Your task to perform on an android device: Open Chrome and go to settings Image 0: 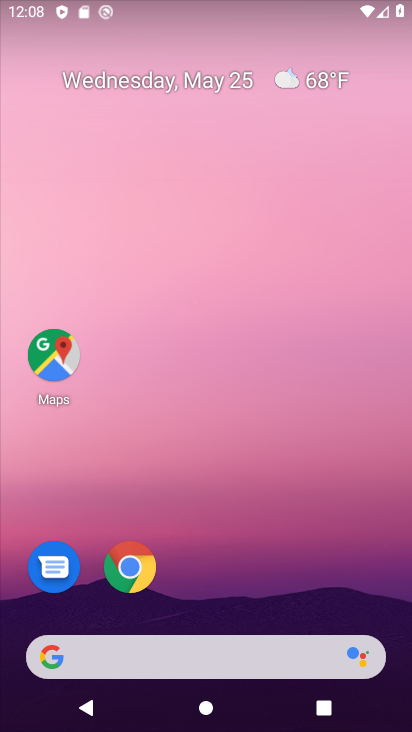
Step 0: click (126, 573)
Your task to perform on an android device: Open Chrome and go to settings Image 1: 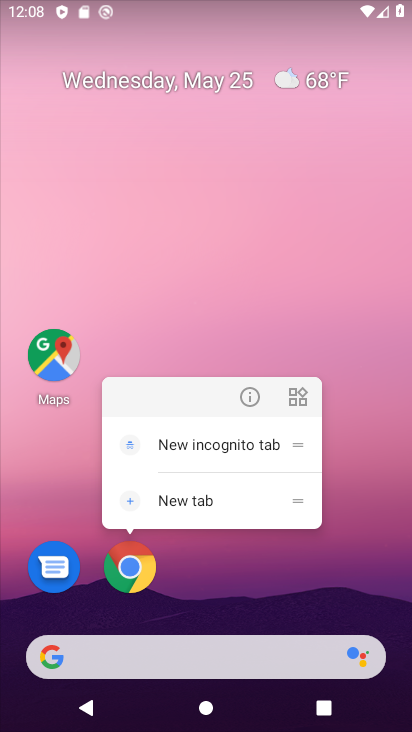
Step 1: click (126, 573)
Your task to perform on an android device: Open Chrome and go to settings Image 2: 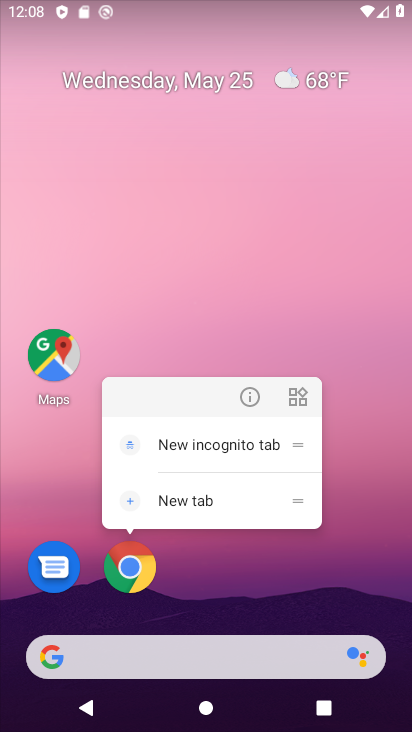
Step 2: click (129, 564)
Your task to perform on an android device: Open Chrome and go to settings Image 3: 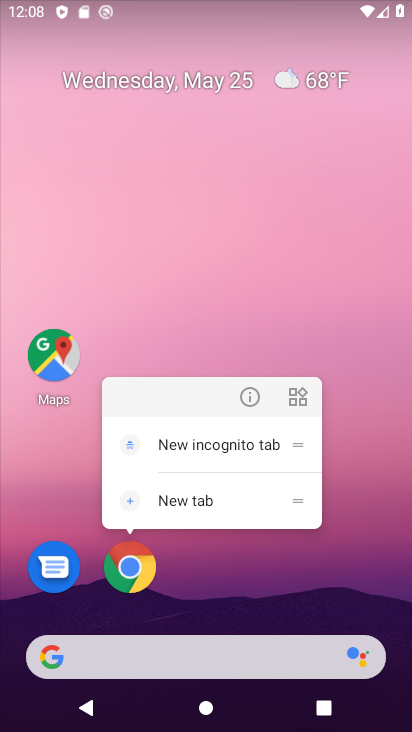
Step 3: click (129, 564)
Your task to perform on an android device: Open Chrome and go to settings Image 4: 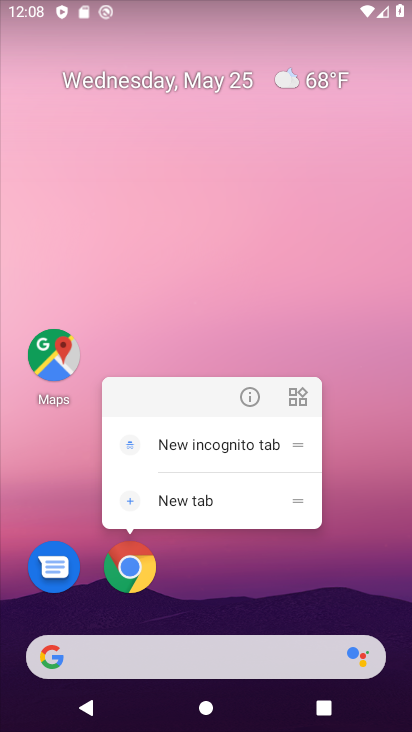
Step 4: click (146, 578)
Your task to perform on an android device: Open Chrome and go to settings Image 5: 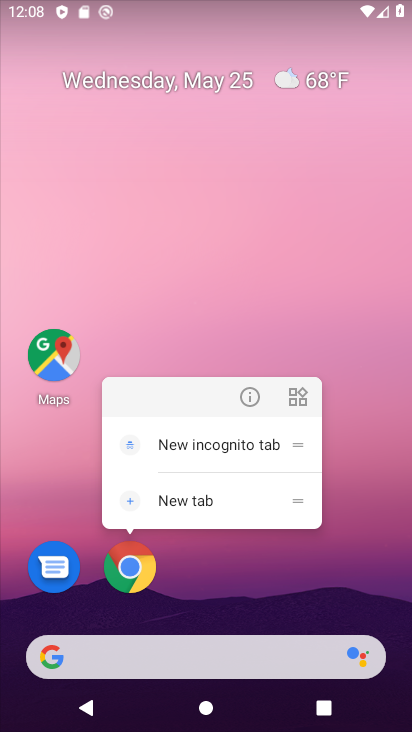
Step 5: click (146, 578)
Your task to perform on an android device: Open Chrome and go to settings Image 6: 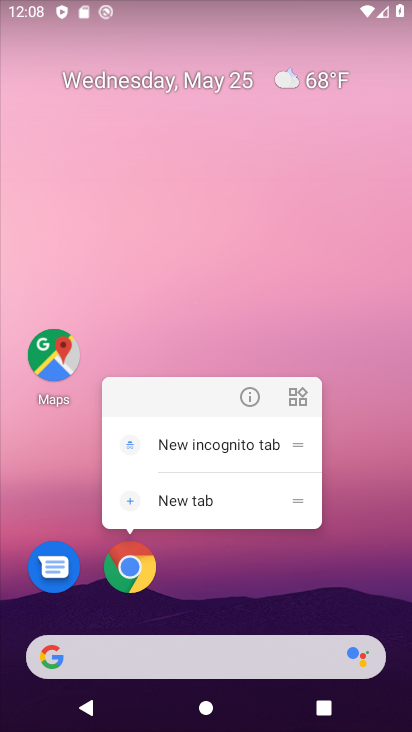
Step 6: click (141, 556)
Your task to perform on an android device: Open Chrome and go to settings Image 7: 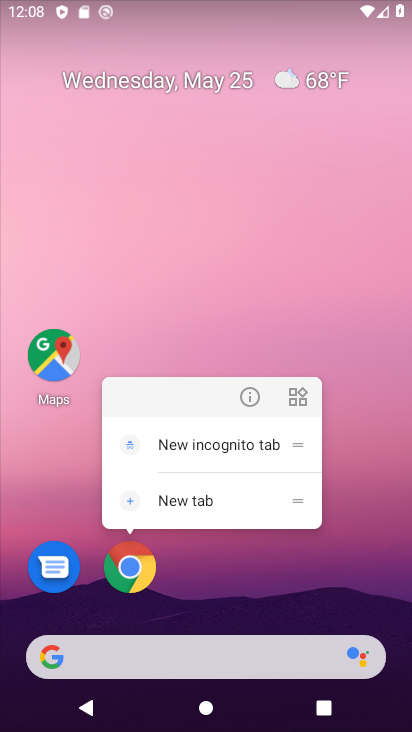
Step 7: click (138, 574)
Your task to perform on an android device: Open Chrome and go to settings Image 8: 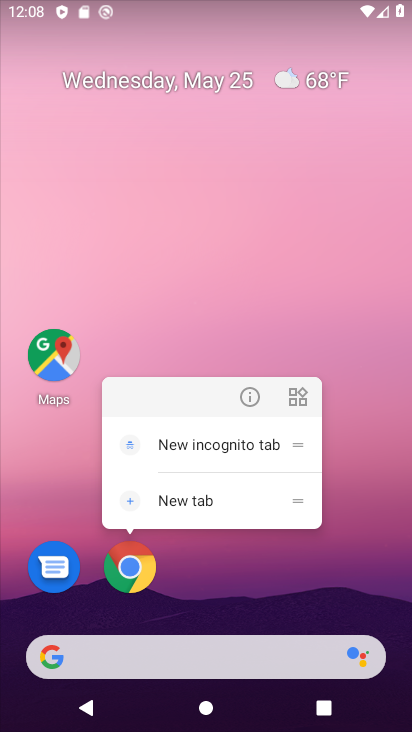
Step 8: click (138, 572)
Your task to perform on an android device: Open Chrome and go to settings Image 9: 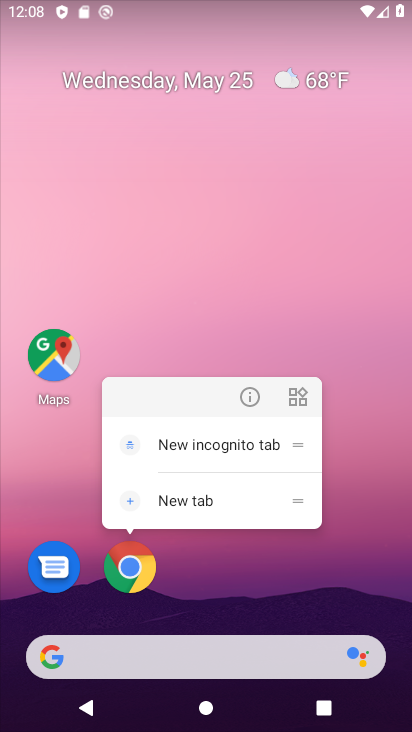
Step 9: click (128, 557)
Your task to perform on an android device: Open Chrome and go to settings Image 10: 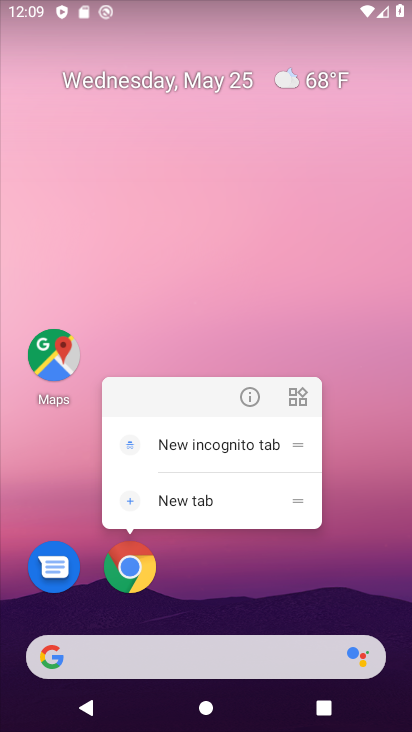
Step 10: click (115, 580)
Your task to perform on an android device: Open Chrome and go to settings Image 11: 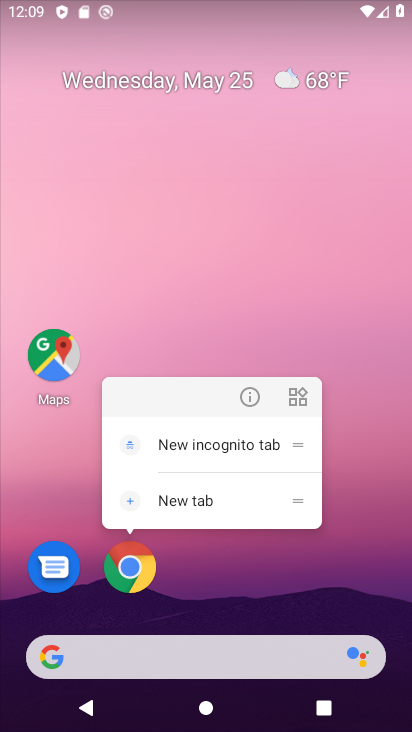
Step 11: click (134, 587)
Your task to perform on an android device: Open Chrome and go to settings Image 12: 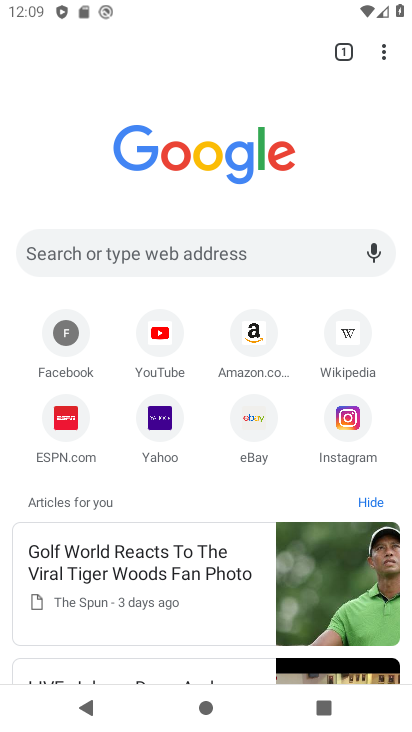
Step 12: task complete